Your task to perform on an android device: toggle notification dots Image 0: 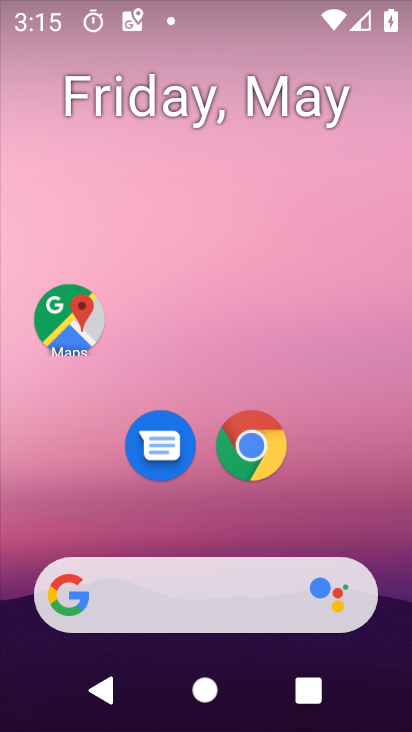
Step 0: drag from (180, 656) to (290, 5)
Your task to perform on an android device: toggle notification dots Image 1: 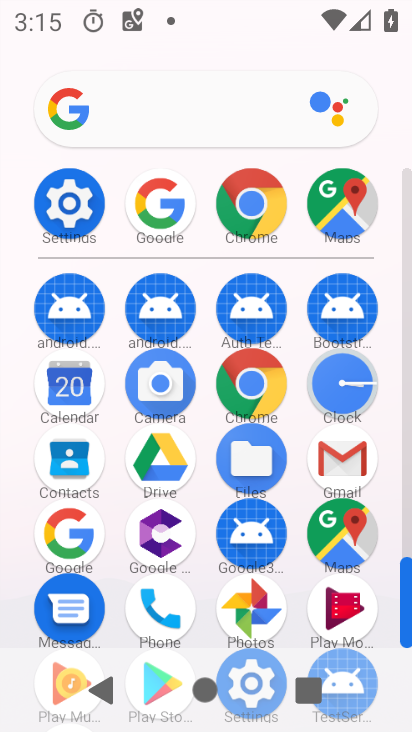
Step 1: drag from (191, 424) to (306, 58)
Your task to perform on an android device: toggle notification dots Image 2: 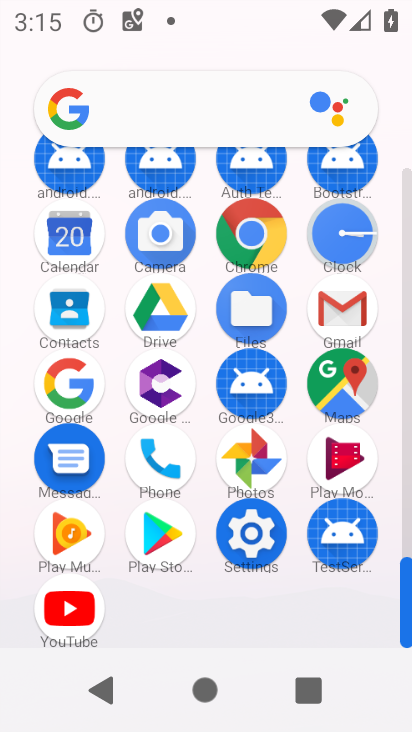
Step 2: click (240, 556)
Your task to perform on an android device: toggle notification dots Image 3: 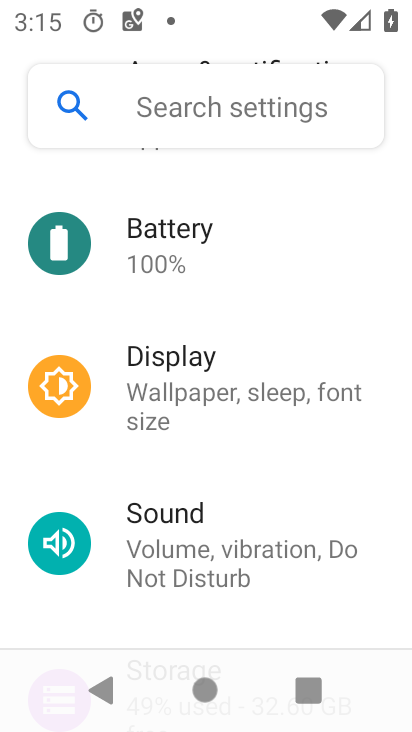
Step 3: drag from (236, 471) to (263, 340)
Your task to perform on an android device: toggle notification dots Image 4: 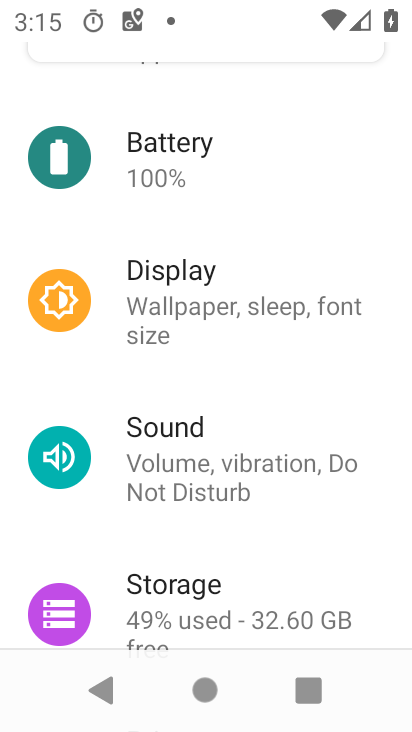
Step 4: drag from (244, 348) to (84, 715)
Your task to perform on an android device: toggle notification dots Image 5: 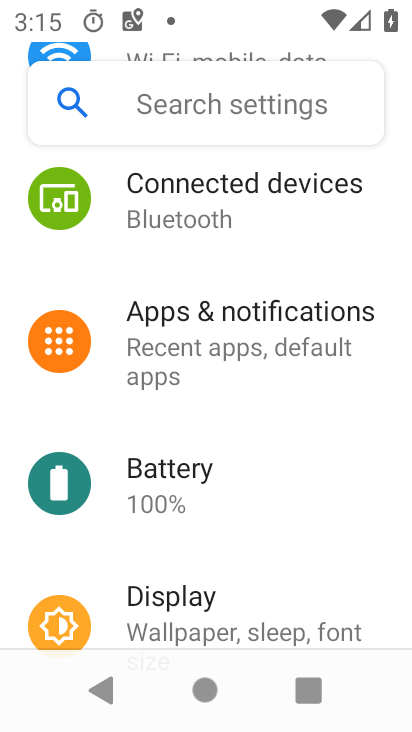
Step 5: click (256, 333)
Your task to perform on an android device: toggle notification dots Image 6: 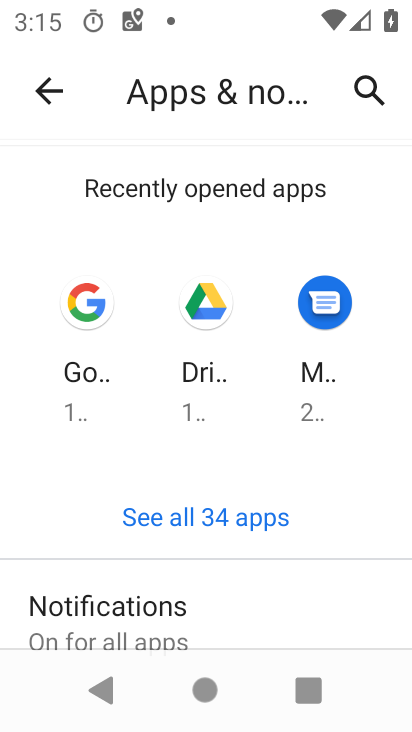
Step 6: drag from (215, 445) to (242, 356)
Your task to perform on an android device: toggle notification dots Image 7: 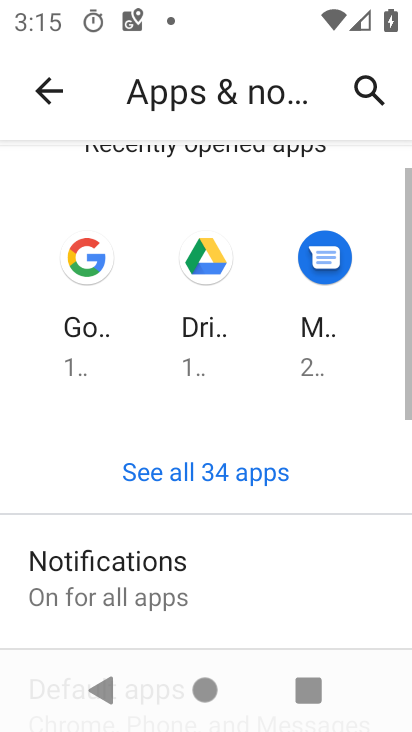
Step 7: drag from (265, 291) to (285, 245)
Your task to perform on an android device: toggle notification dots Image 8: 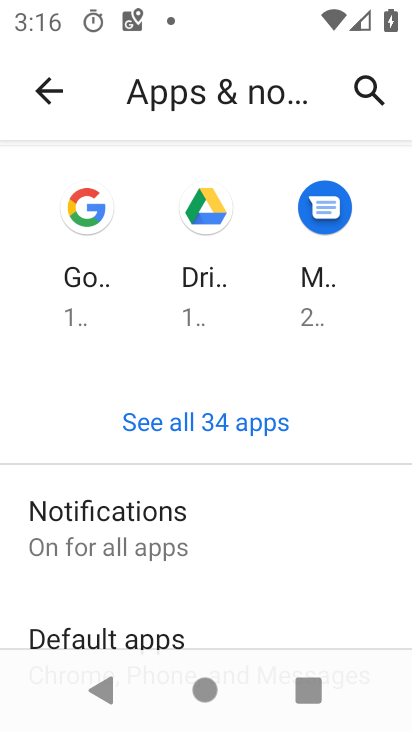
Step 8: click (198, 528)
Your task to perform on an android device: toggle notification dots Image 9: 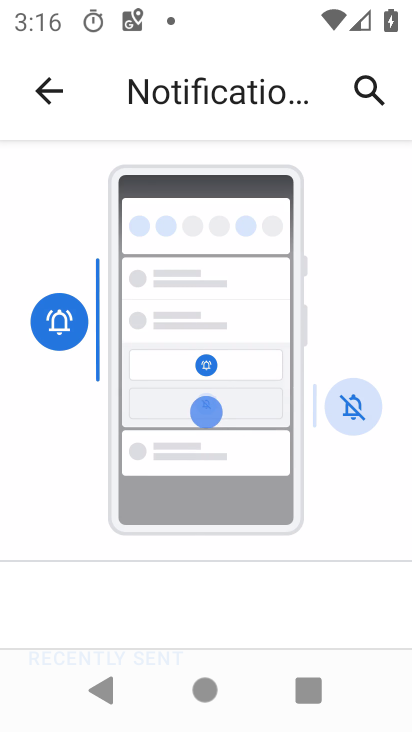
Step 9: drag from (214, 519) to (348, 186)
Your task to perform on an android device: toggle notification dots Image 10: 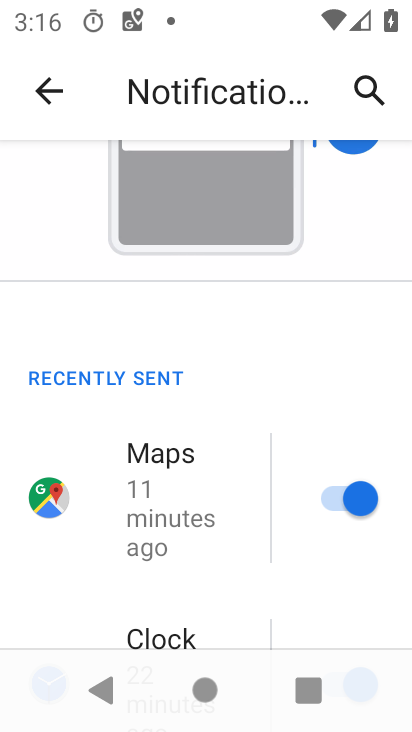
Step 10: drag from (212, 511) to (300, 210)
Your task to perform on an android device: toggle notification dots Image 11: 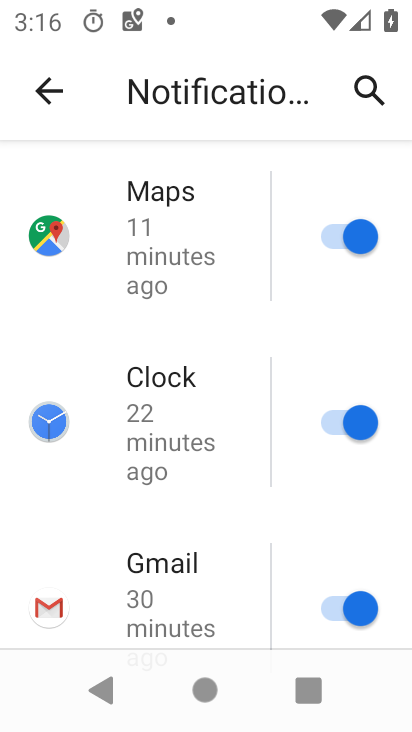
Step 11: drag from (195, 534) to (279, 162)
Your task to perform on an android device: toggle notification dots Image 12: 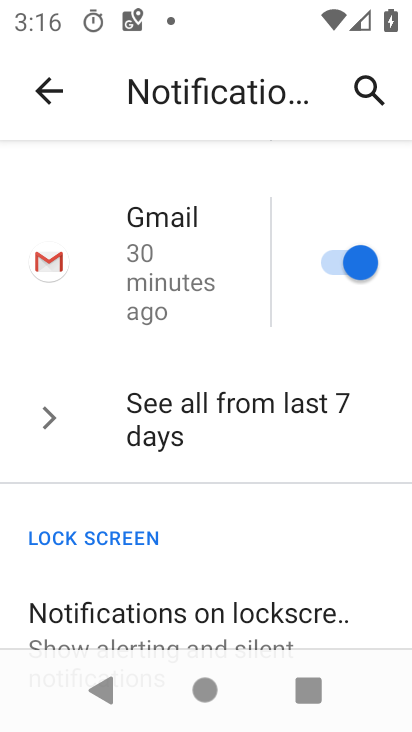
Step 12: drag from (153, 503) to (220, 281)
Your task to perform on an android device: toggle notification dots Image 13: 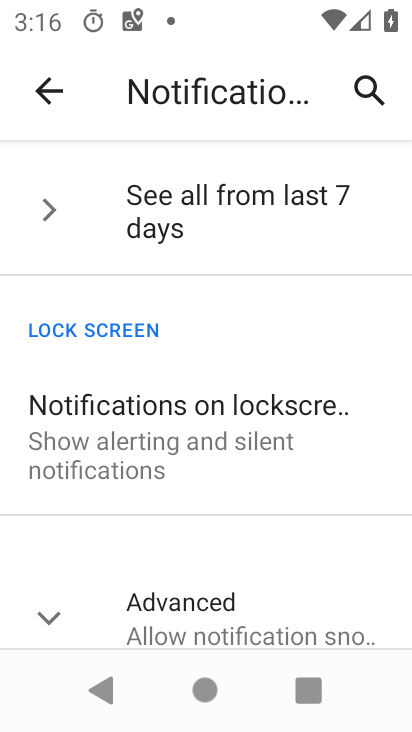
Step 13: drag from (185, 528) to (228, 283)
Your task to perform on an android device: toggle notification dots Image 14: 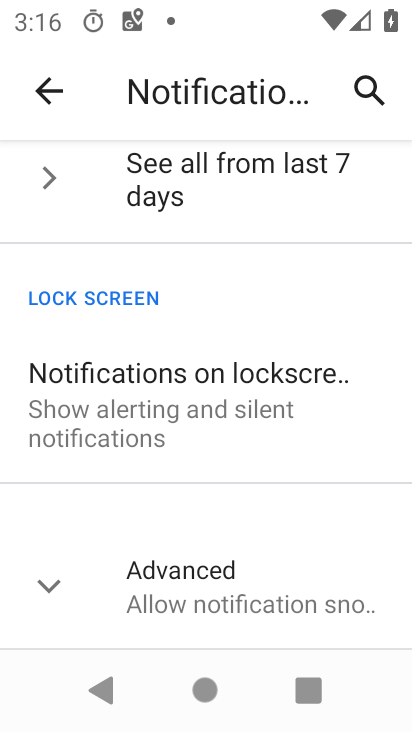
Step 14: click (183, 591)
Your task to perform on an android device: toggle notification dots Image 15: 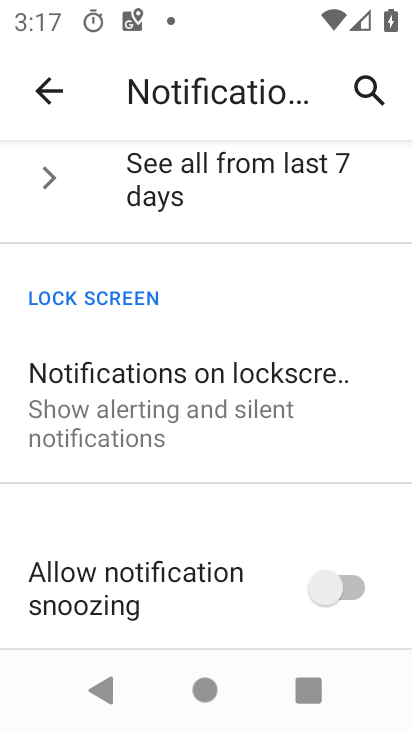
Step 15: drag from (178, 525) to (248, 243)
Your task to perform on an android device: toggle notification dots Image 16: 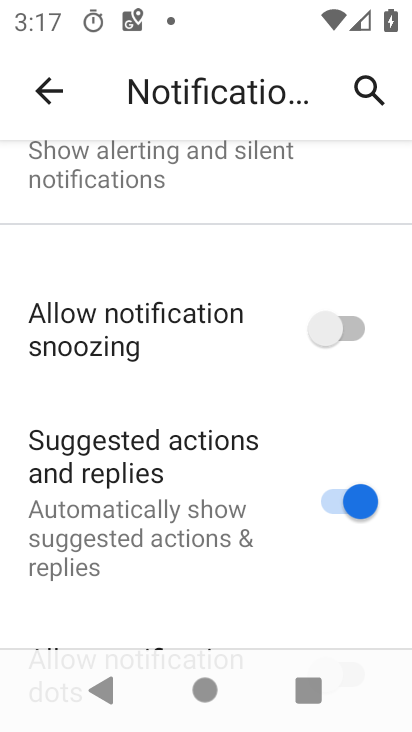
Step 16: drag from (259, 332) to (351, 130)
Your task to perform on an android device: toggle notification dots Image 17: 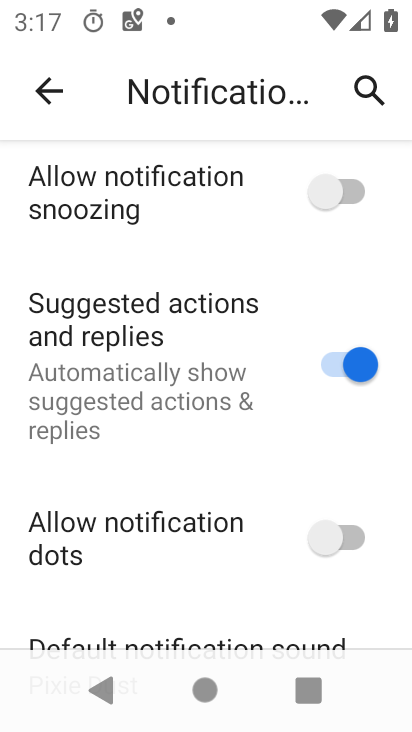
Step 17: drag from (213, 508) to (317, 186)
Your task to perform on an android device: toggle notification dots Image 18: 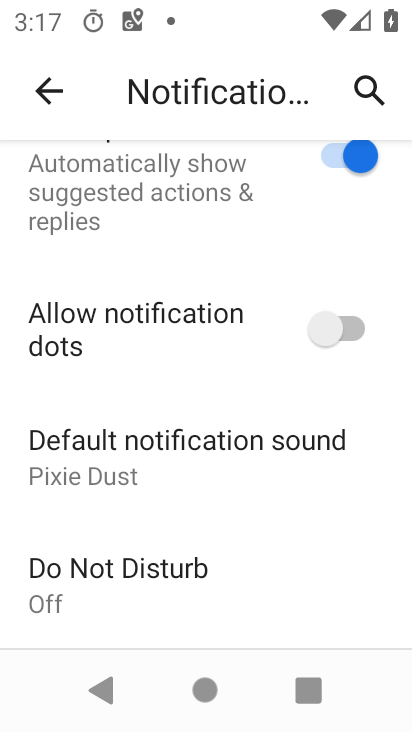
Step 18: click (252, 341)
Your task to perform on an android device: toggle notification dots Image 19: 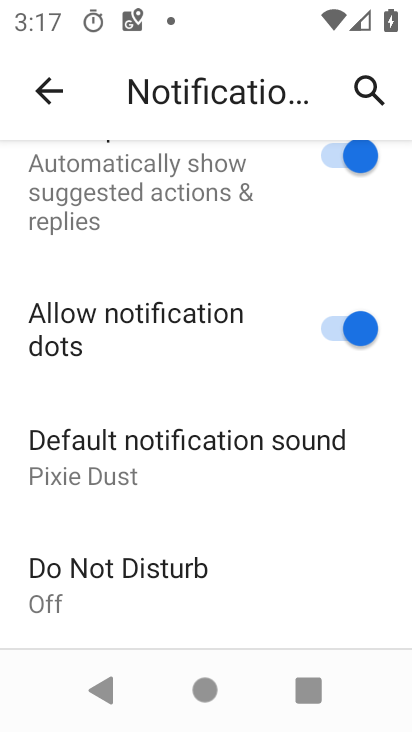
Step 19: task complete